Your task to perform on an android device: set default search engine in the chrome app Image 0: 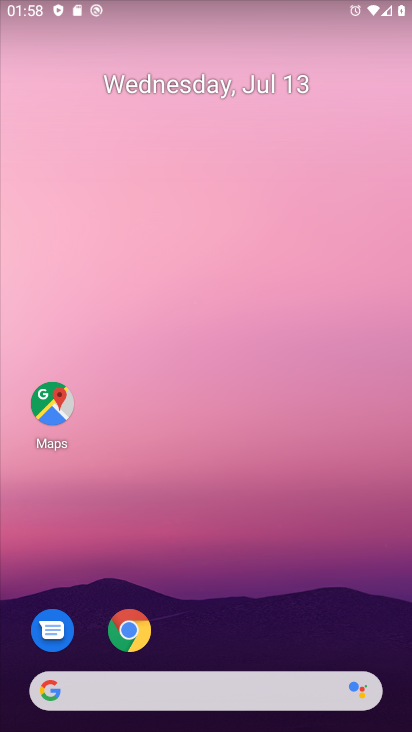
Step 0: click (139, 623)
Your task to perform on an android device: set default search engine in the chrome app Image 1: 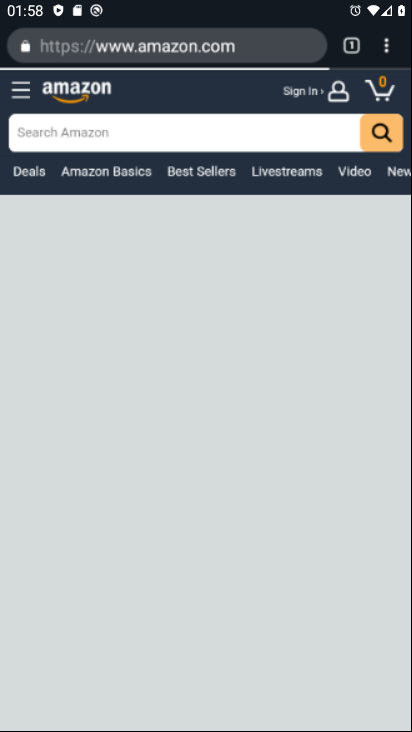
Step 1: click (382, 40)
Your task to perform on an android device: set default search engine in the chrome app Image 2: 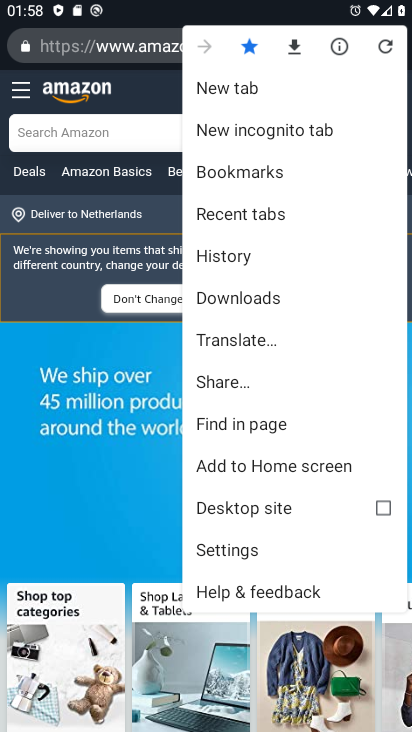
Step 2: click (242, 549)
Your task to perform on an android device: set default search engine in the chrome app Image 3: 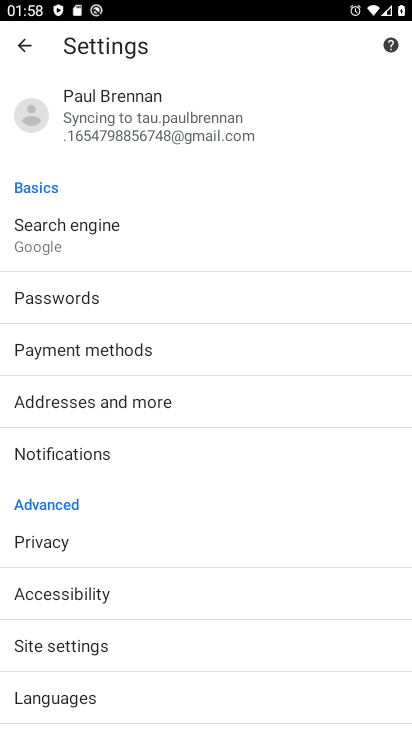
Step 3: click (97, 237)
Your task to perform on an android device: set default search engine in the chrome app Image 4: 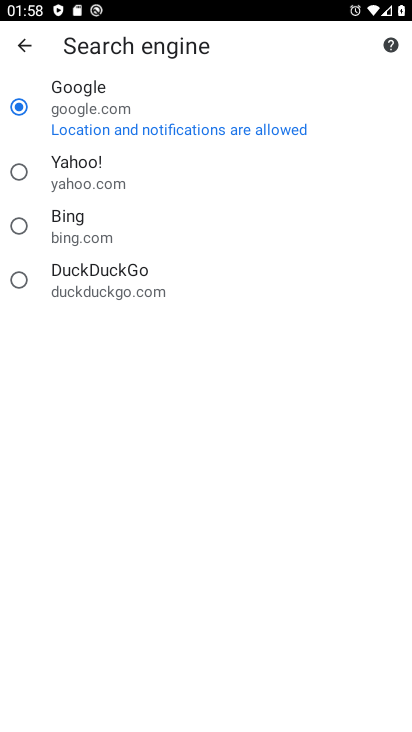
Step 4: task complete